Your task to perform on an android device: Open Maps and search for coffee Image 0: 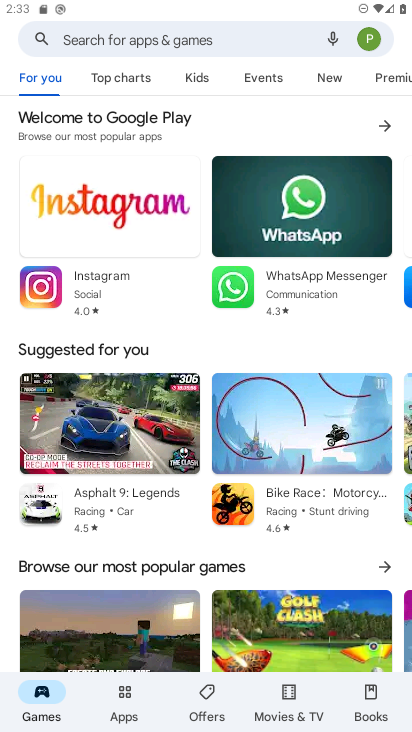
Step 0: press home button
Your task to perform on an android device: Open Maps and search for coffee Image 1: 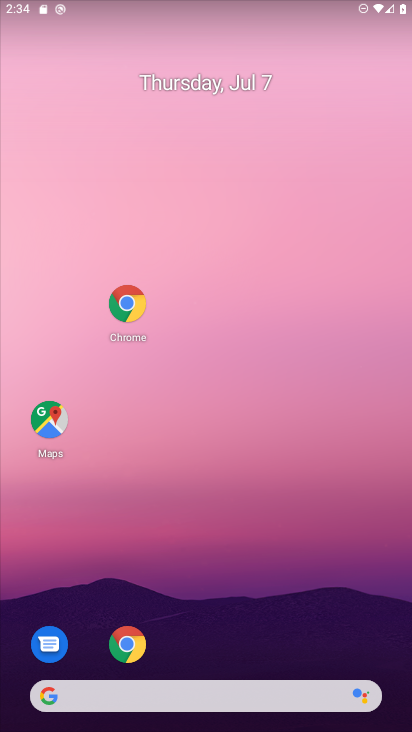
Step 1: drag from (261, 627) to (265, 127)
Your task to perform on an android device: Open Maps and search for coffee Image 2: 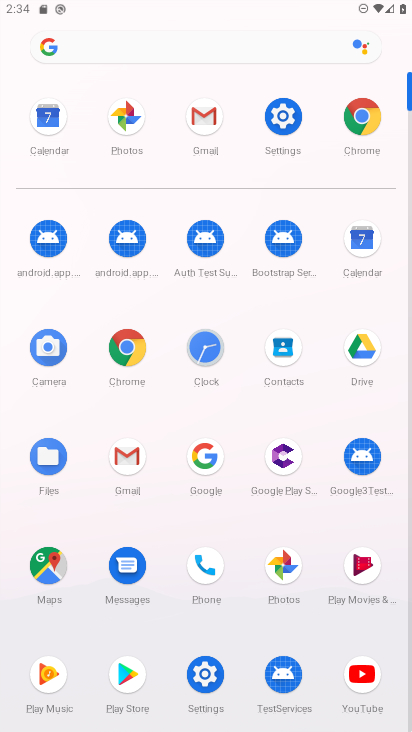
Step 2: click (47, 574)
Your task to perform on an android device: Open Maps and search for coffee Image 3: 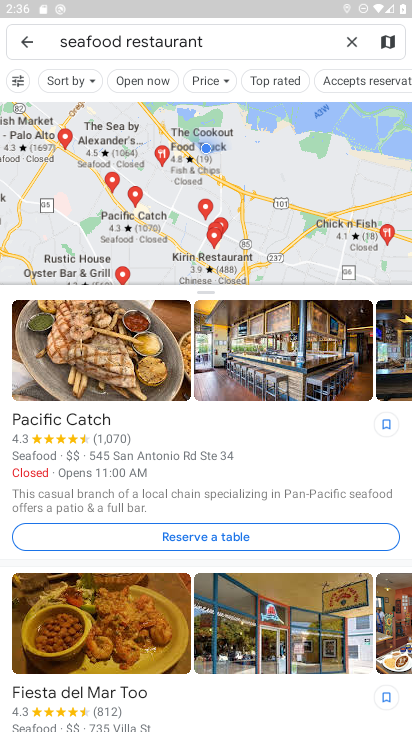
Step 3: click (355, 36)
Your task to perform on an android device: Open Maps and search for coffee Image 4: 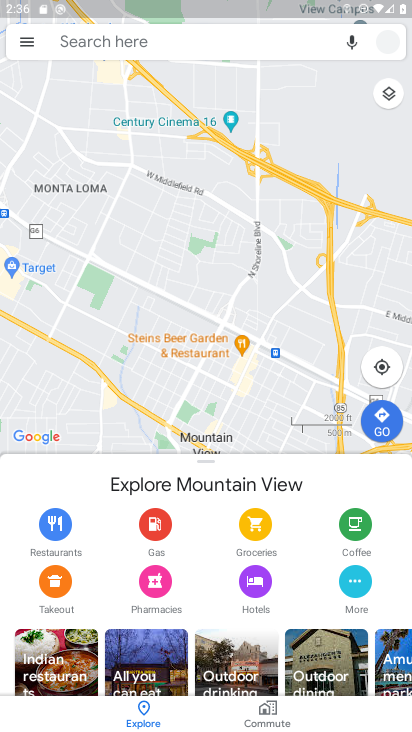
Step 4: click (241, 42)
Your task to perform on an android device: Open Maps and search for coffee Image 5: 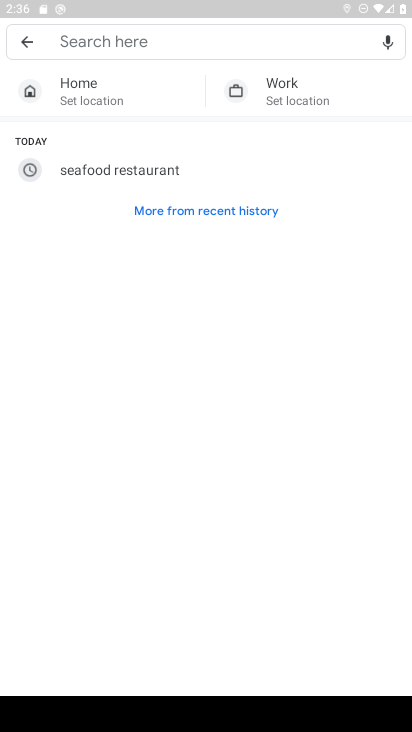
Step 5: type "coffee"
Your task to perform on an android device: Open Maps and search for coffee Image 6: 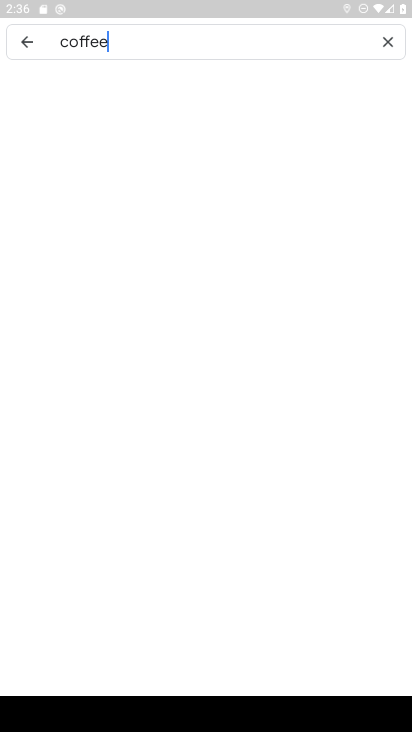
Step 6: type ""
Your task to perform on an android device: Open Maps and search for coffee Image 7: 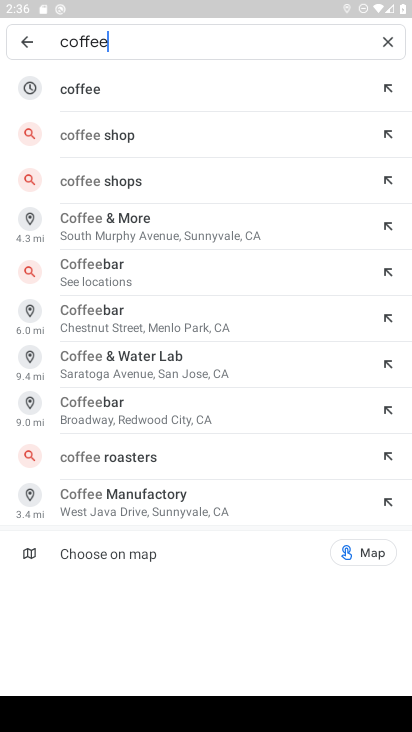
Step 7: click (154, 98)
Your task to perform on an android device: Open Maps and search for coffee Image 8: 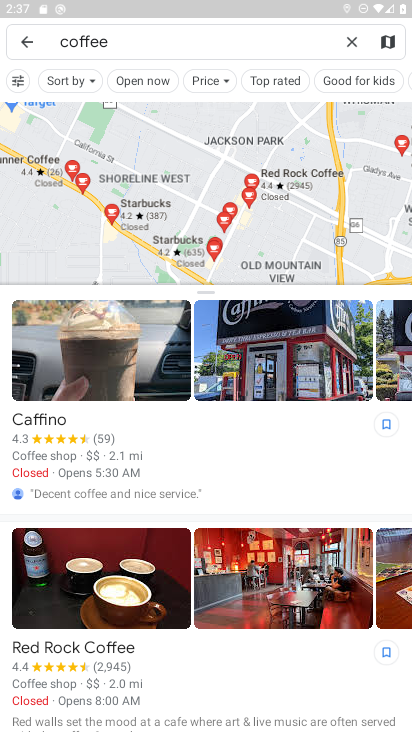
Step 8: task complete